Your task to perform on an android device: Open wifi settings Image 0: 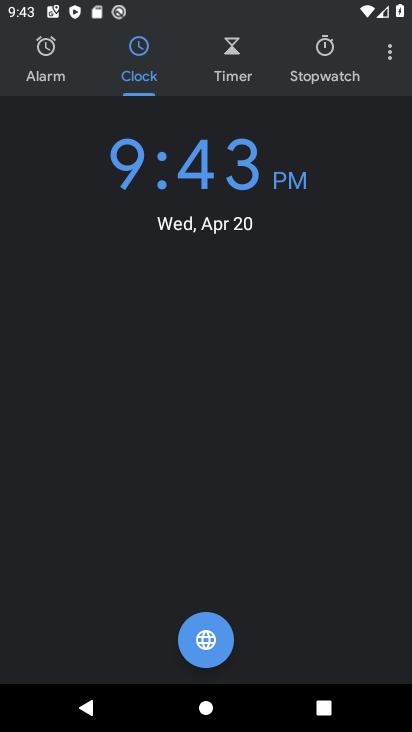
Step 0: press back button
Your task to perform on an android device: Open wifi settings Image 1: 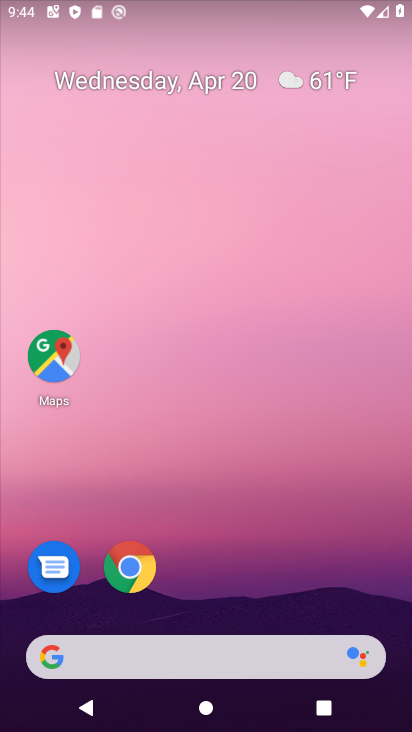
Step 1: drag from (121, 41) to (178, 529)
Your task to perform on an android device: Open wifi settings Image 2: 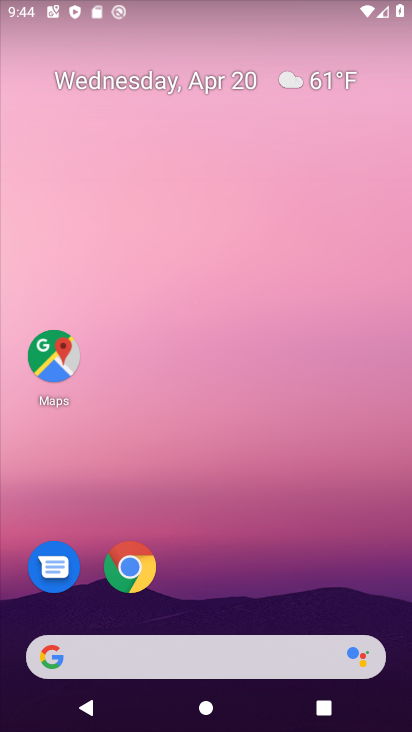
Step 2: drag from (120, 5) to (166, 494)
Your task to perform on an android device: Open wifi settings Image 3: 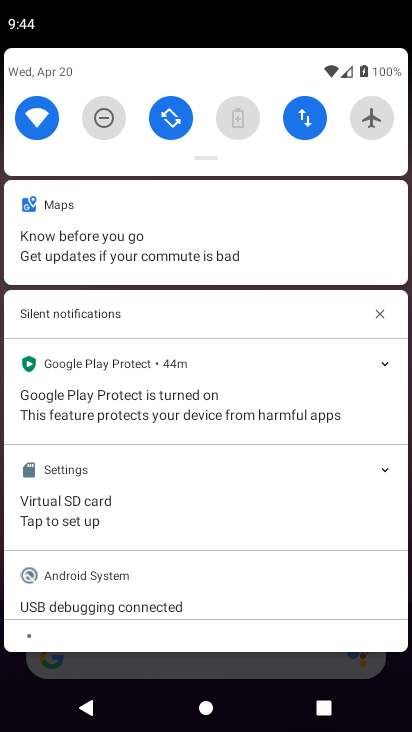
Step 3: click (36, 117)
Your task to perform on an android device: Open wifi settings Image 4: 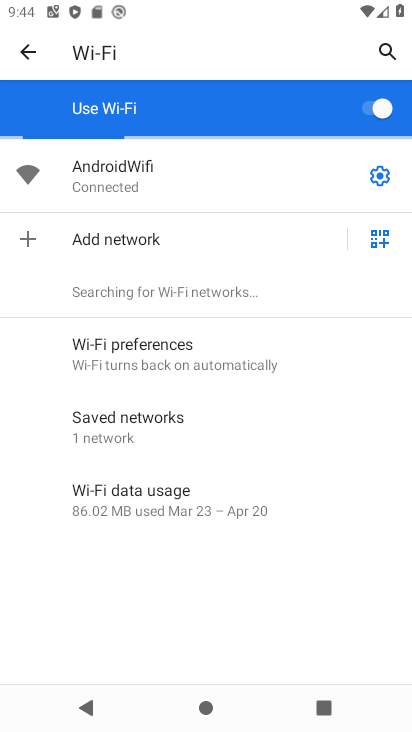
Step 4: task complete